Your task to perform on an android device: toggle translation in the chrome app Image 0: 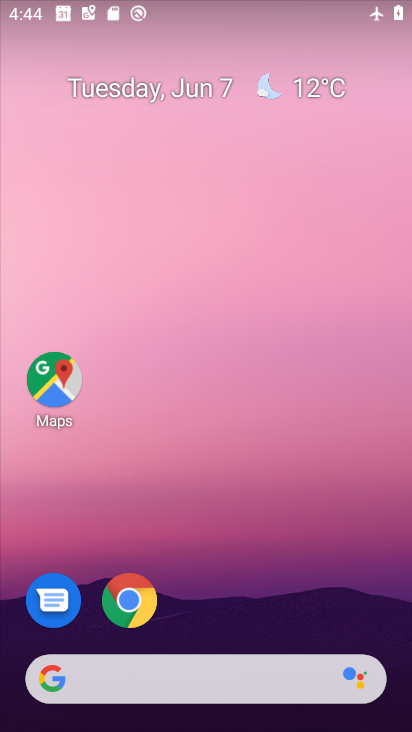
Step 0: drag from (275, 578) to (246, 156)
Your task to perform on an android device: toggle translation in the chrome app Image 1: 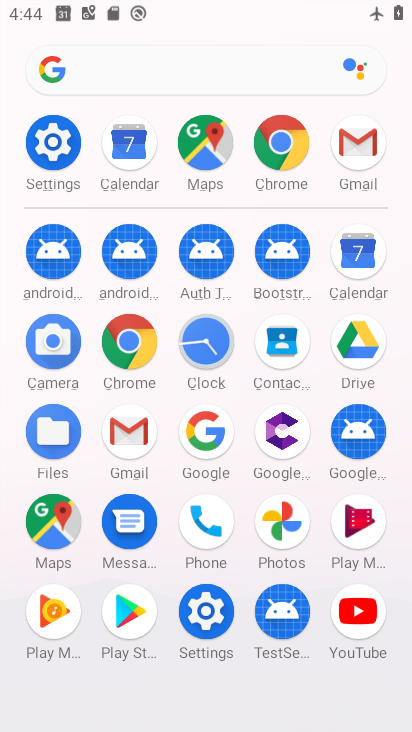
Step 1: click (284, 139)
Your task to perform on an android device: toggle translation in the chrome app Image 2: 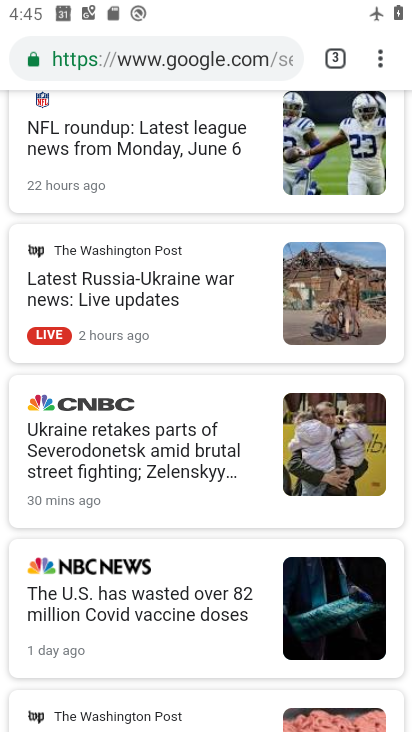
Step 2: drag from (380, 62) to (203, 636)
Your task to perform on an android device: toggle translation in the chrome app Image 3: 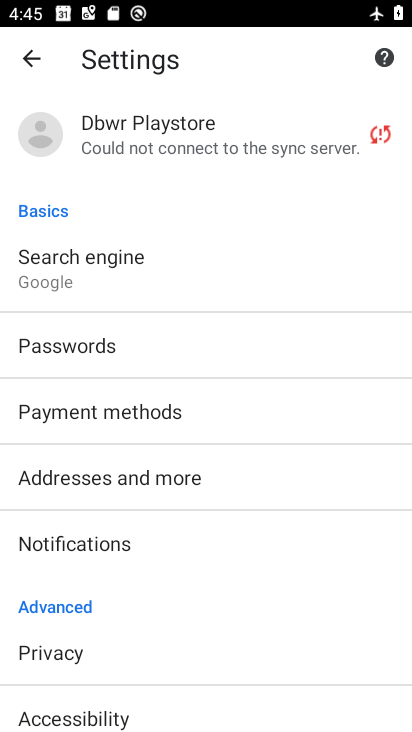
Step 3: drag from (200, 611) to (224, 222)
Your task to perform on an android device: toggle translation in the chrome app Image 4: 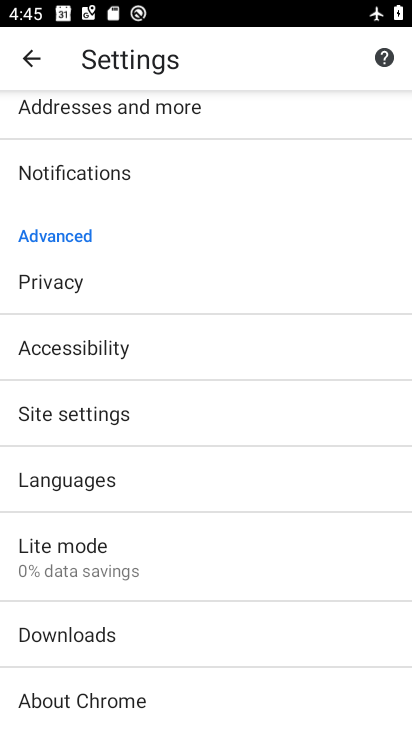
Step 4: click (113, 493)
Your task to perform on an android device: toggle translation in the chrome app Image 5: 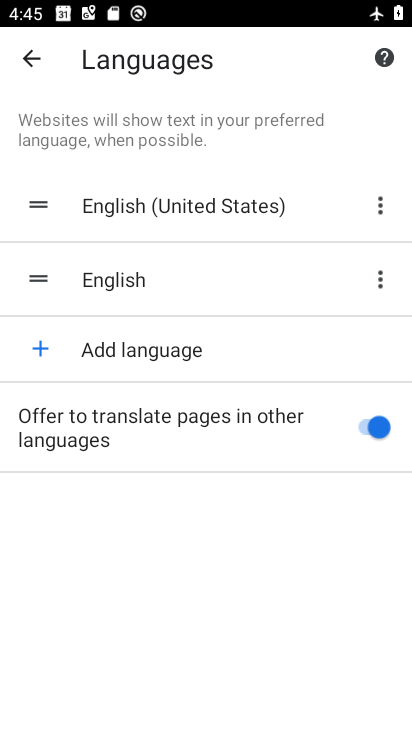
Step 5: click (364, 420)
Your task to perform on an android device: toggle translation in the chrome app Image 6: 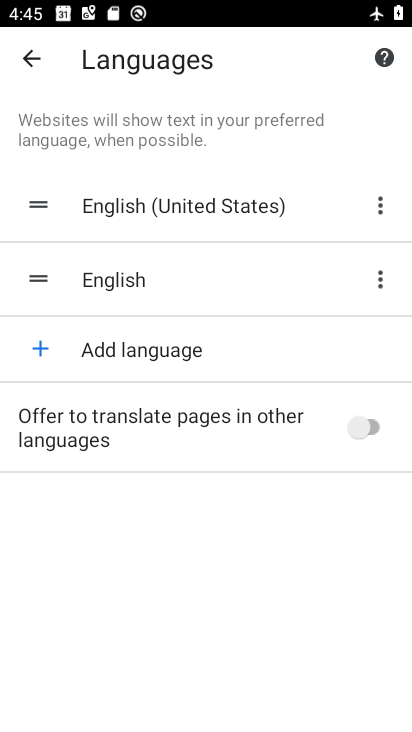
Step 6: task complete